Your task to perform on an android device: Set the phone to "Do not disturb". Image 0: 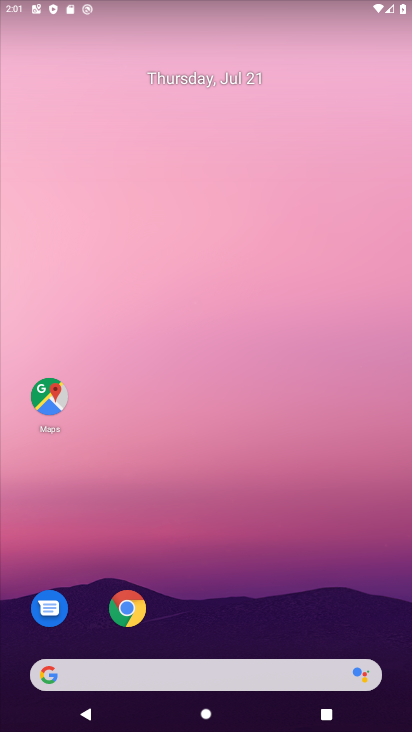
Step 0: drag from (226, 607) to (244, 217)
Your task to perform on an android device: Set the phone to "Do not disturb". Image 1: 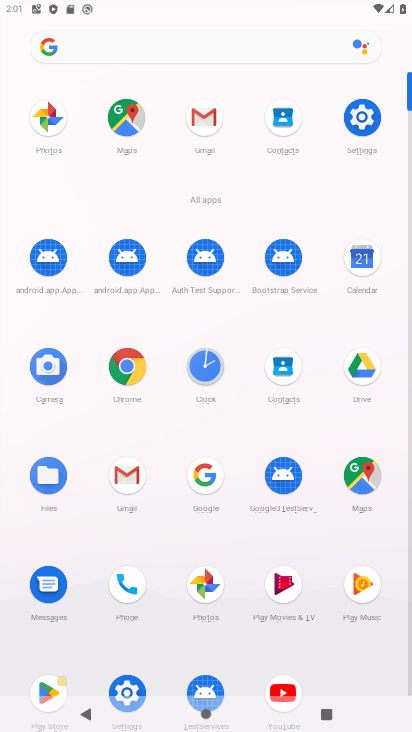
Step 1: click (358, 116)
Your task to perform on an android device: Set the phone to "Do not disturb". Image 2: 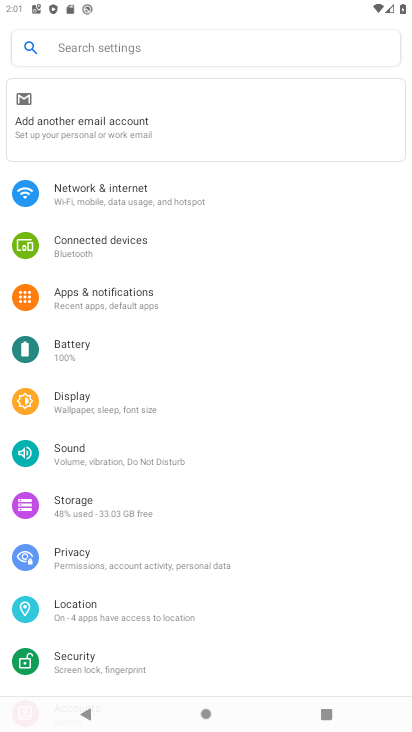
Step 2: click (122, 463)
Your task to perform on an android device: Set the phone to "Do not disturb". Image 3: 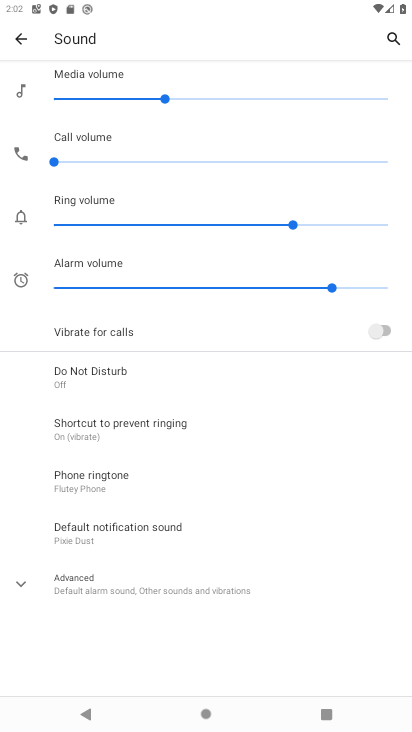
Step 3: click (85, 372)
Your task to perform on an android device: Set the phone to "Do not disturb". Image 4: 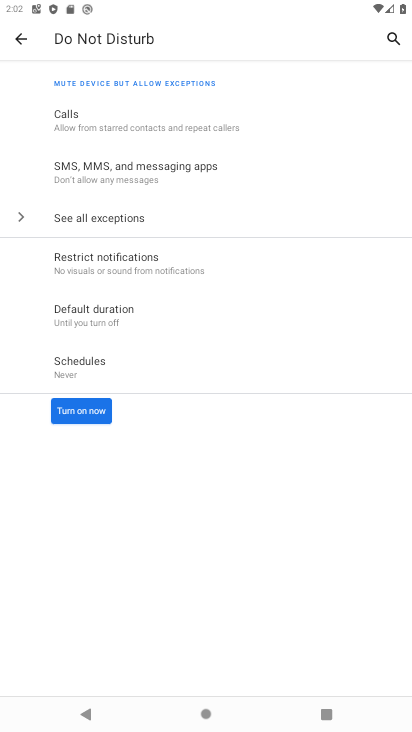
Step 4: click (88, 413)
Your task to perform on an android device: Set the phone to "Do not disturb". Image 5: 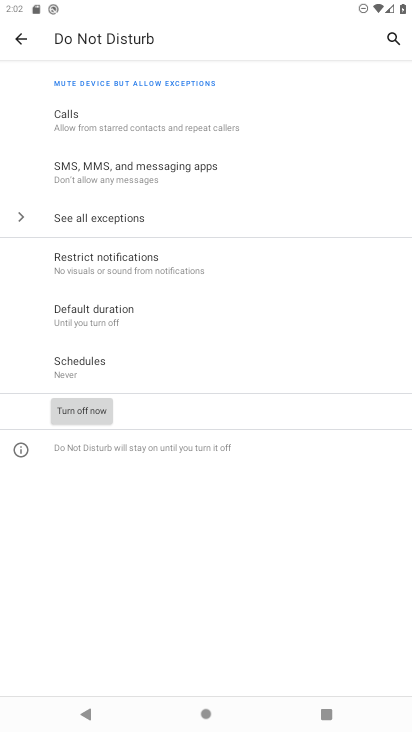
Step 5: task complete